Your task to perform on an android device: Open Maps and search for coffee Image 0: 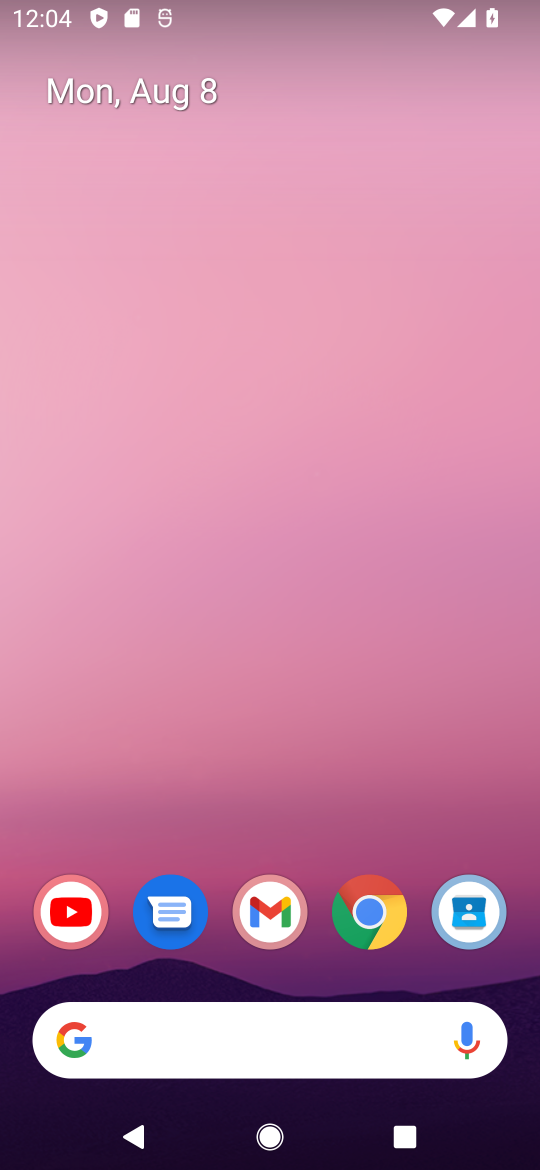
Step 0: drag from (269, 997) to (394, 114)
Your task to perform on an android device: Open Maps and search for coffee Image 1: 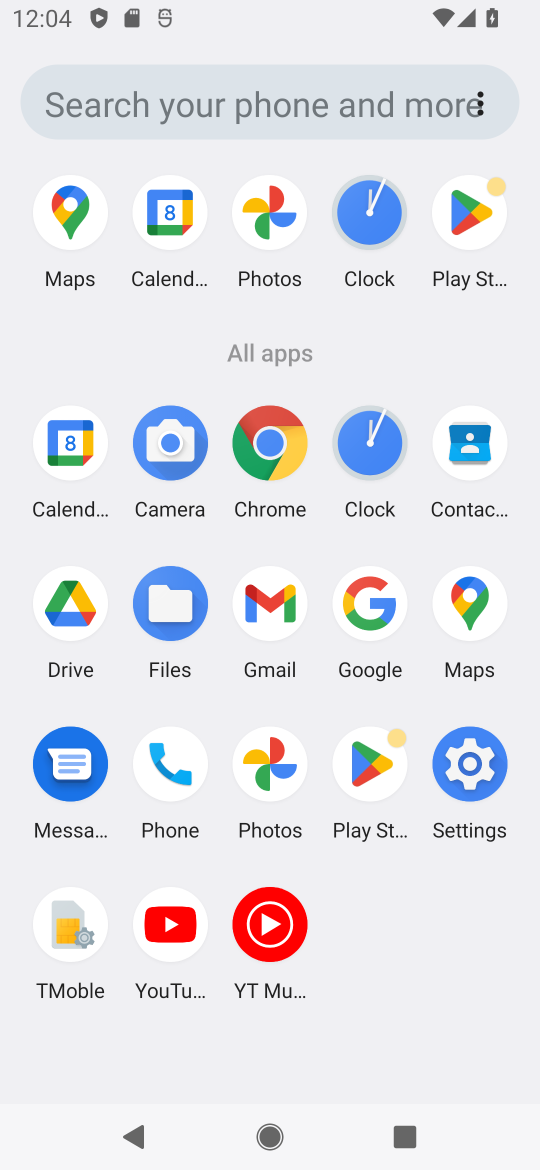
Step 1: click (483, 595)
Your task to perform on an android device: Open Maps and search for coffee Image 2: 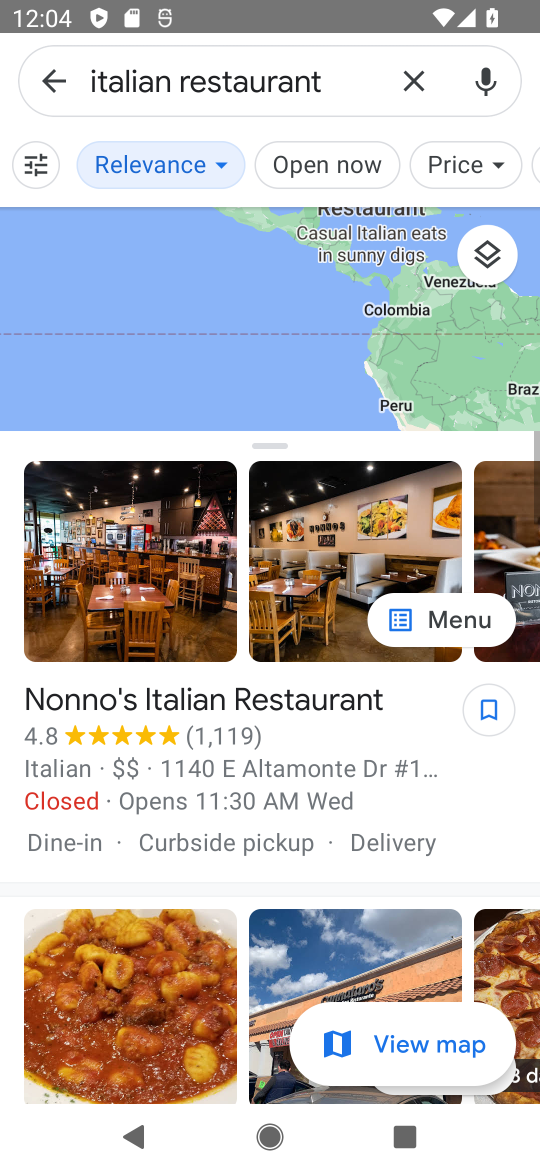
Step 2: click (403, 69)
Your task to perform on an android device: Open Maps and search for coffee Image 3: 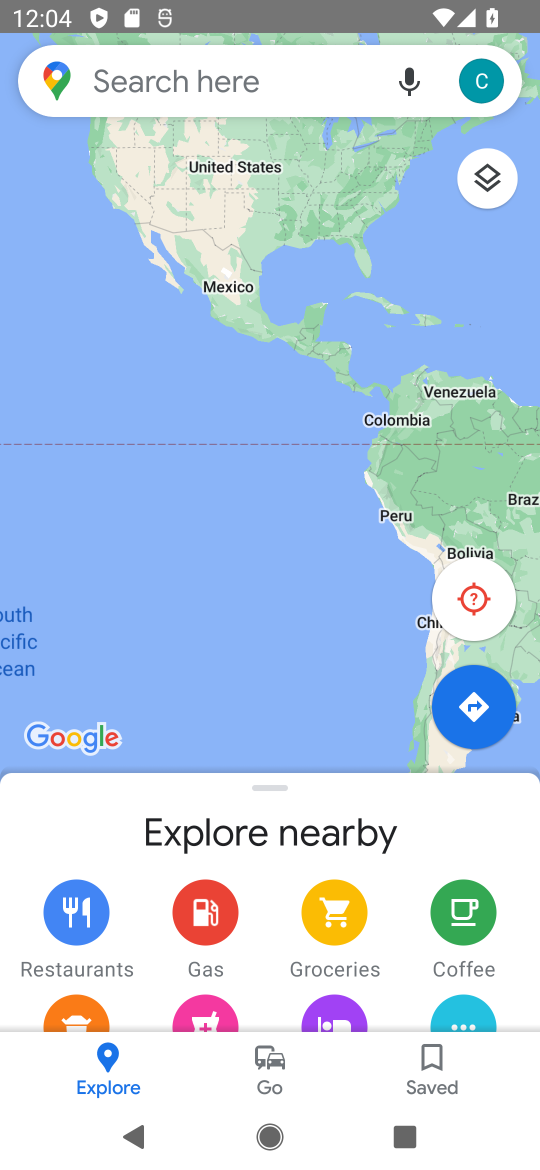
Step 3: click (173, 81)
Your task to perform on an android device: Open Maps and search for coffee Image 4: 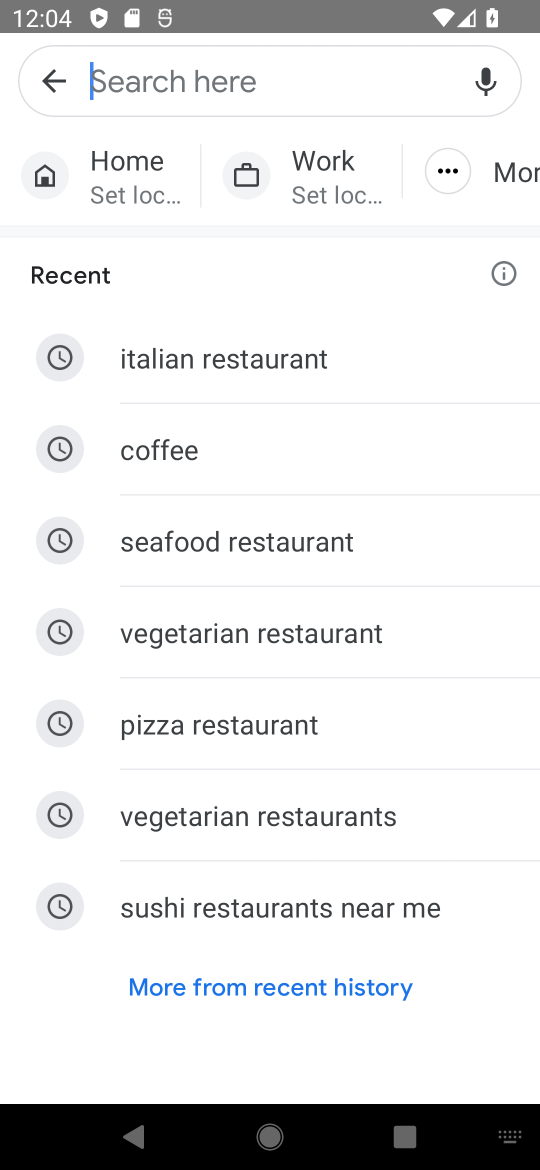
Step 4: type "coffee"
Your task to perform on an android device: Open Maps and search for coffee Image 5: 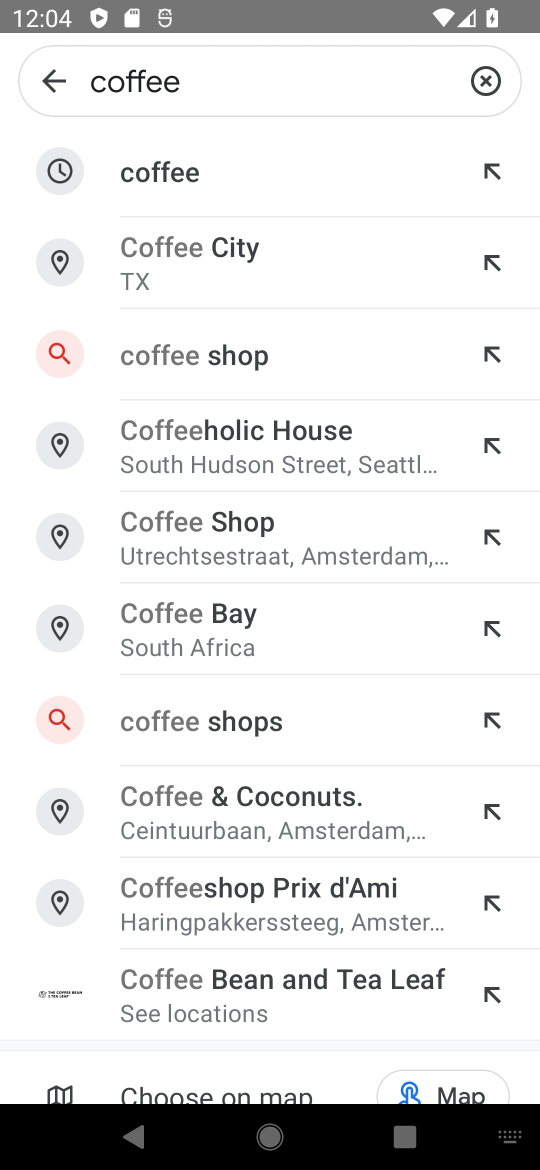
Step 5: click (167, 172)
Your task to perform on an android device: Open Maps and search for coffee Image 6: 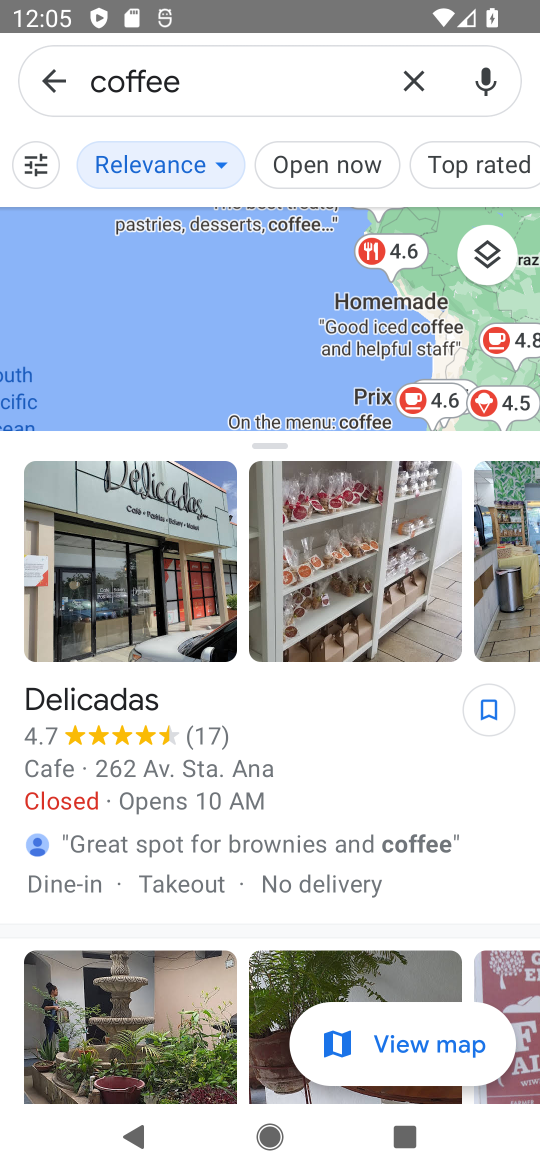
Step 6: task complete